Your task to perform on an android device: turn off location history Image 0: 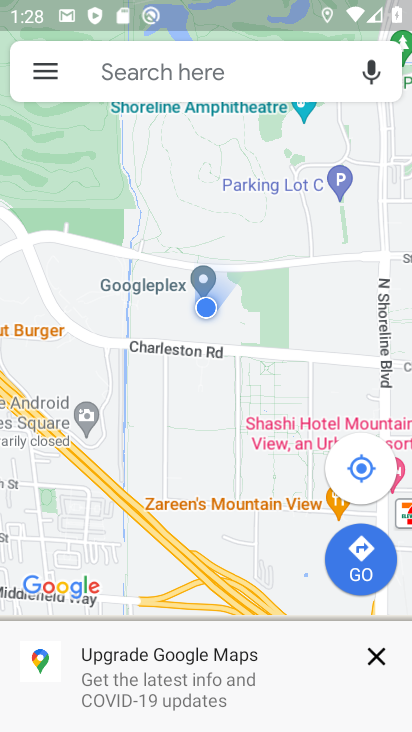
Step 0: press home button
Your task to perform on an android device: turn off location history Image 1: 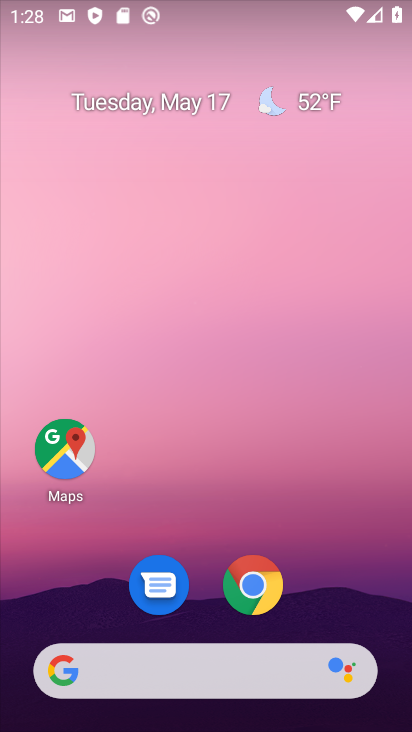
Step 1: drag from (277, 516) to (283, 160)
Your task to perform on an android device: turn off location history Image 2: 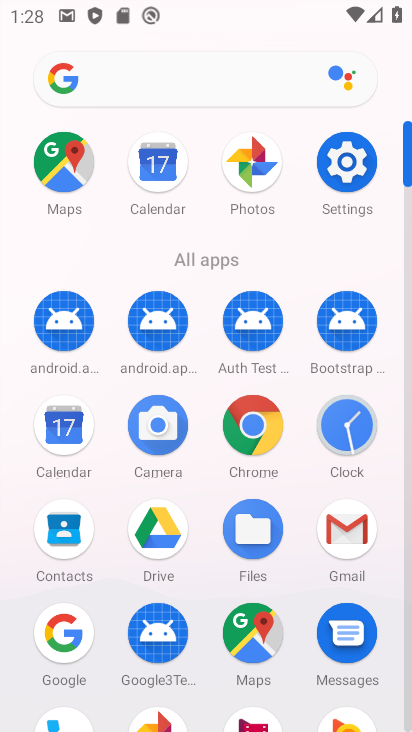
Step 2: click (338, 168)
Your task to perform on an android device: turn off location history Image 3: 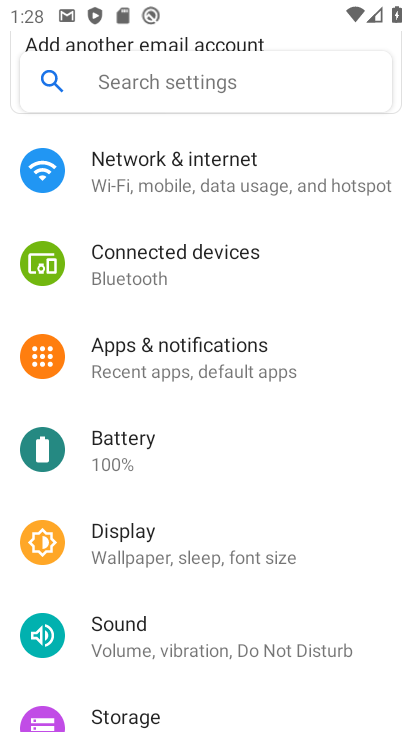
Step 3: drag from (178, 590) to (244, 129)
Your task to perform on an android device: turn off location history Image 4: 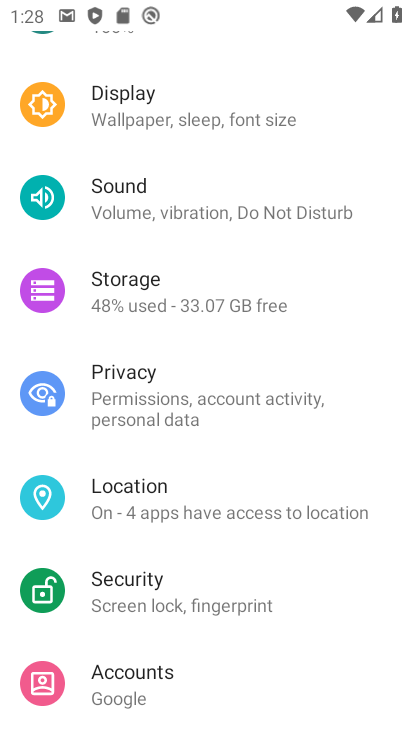
Step 4: click (183, 499)
Your task to perform on an android device: turn off location history Image 5: 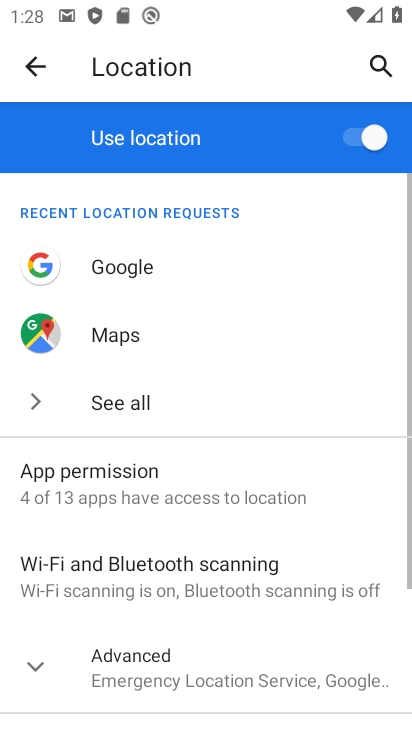
Step 5: drag from (233, 515) to (246, 304)
Your task to perform on an android device: turn off location history Image 6: 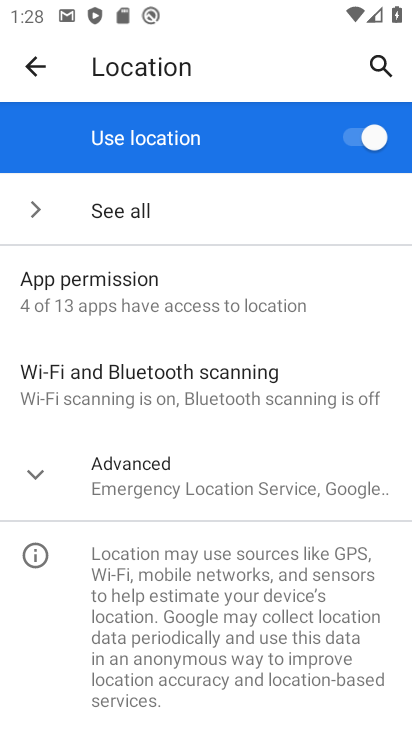
Step 6: click (34, 480)
Your task to perform on an android device: turn off location history Image 7: 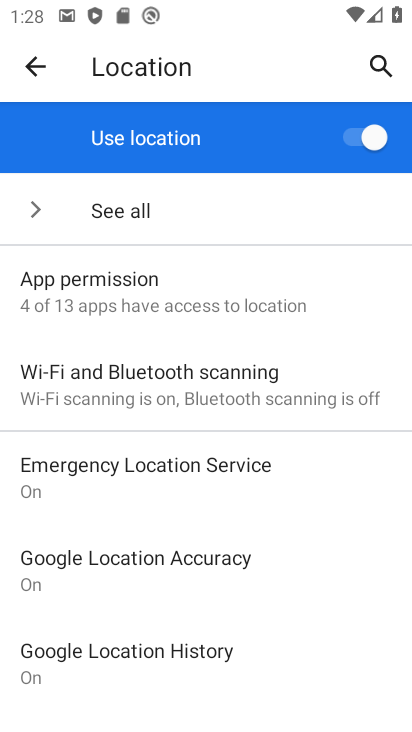
Step 7: click (178, 670)
Your task to perform on an android device: turn off location history Image 8: 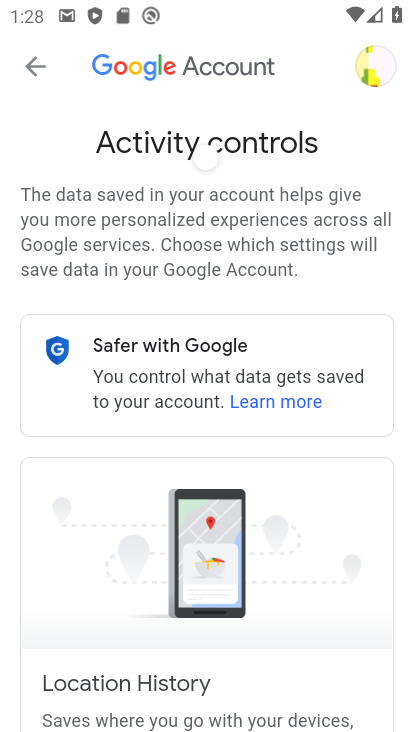
Step 8: drag from (301, 559) to (340, 226)
Your task to perform on an android device: turn off location history Image 9: 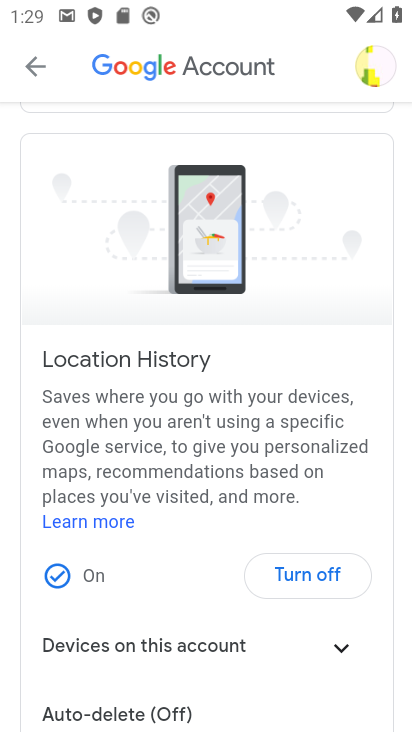
Step 9: click (308, 567)
Your task to perform on an android device: turn off location history Image 10: 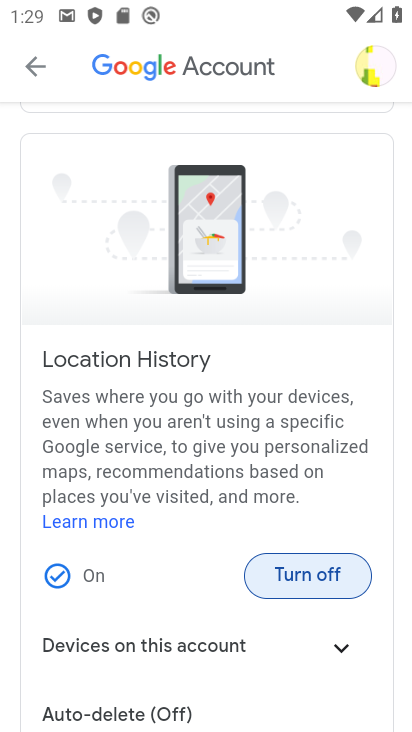
Step 10: click (308, 565)
Your task to perform on an android device: turn off location history Image 11: 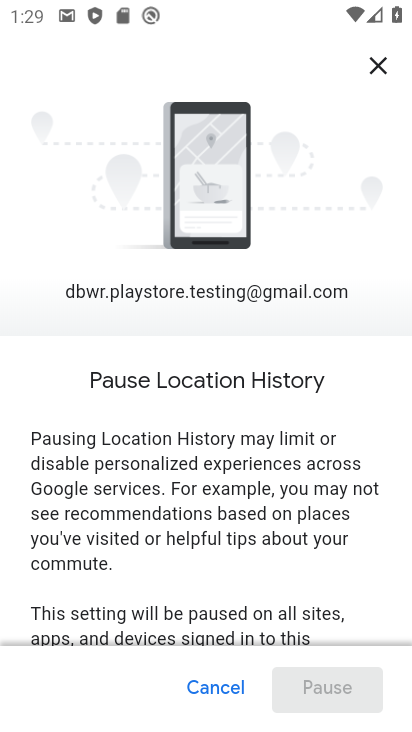
Step 11: drag from (308, 561) to (344, 361)
Your task to perform on an android device: turn off location history Image 12: 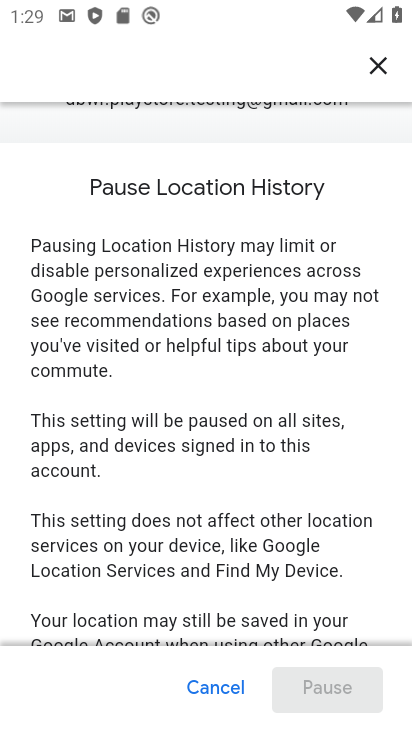
Step 12: drag from (280, 526) to (296, 194)
Your task to perform on an android device: turn off location history Image 13: 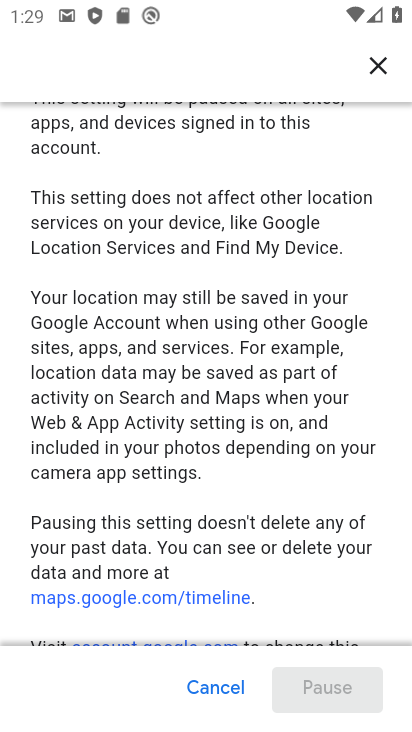
Step 13: drag from (283, 530) to (285, 241)
Your task to perform on an android device: turn off location history Image 14: 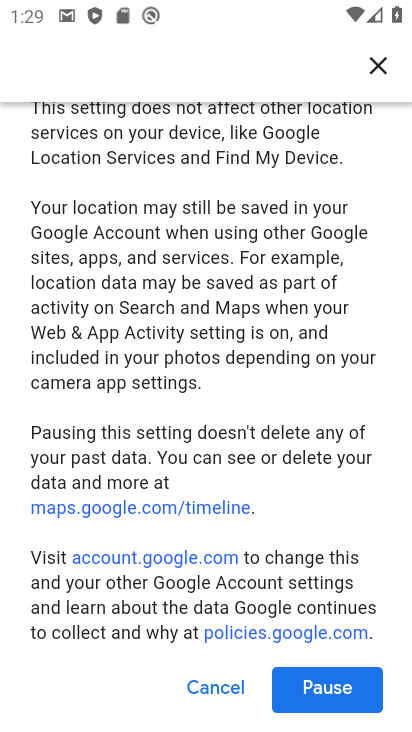
Step 14: click (312, 687)
Your task to perform on an android device: turn off location history Image 15: 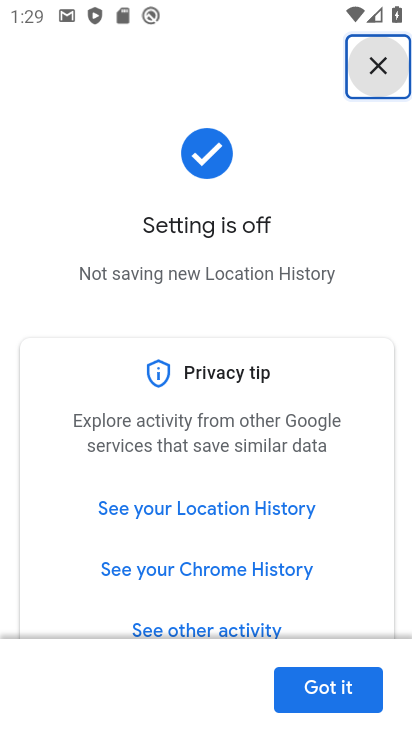
Step 15: click (362, 688)
Your task to perform on an android device: turn off location history Image 16: 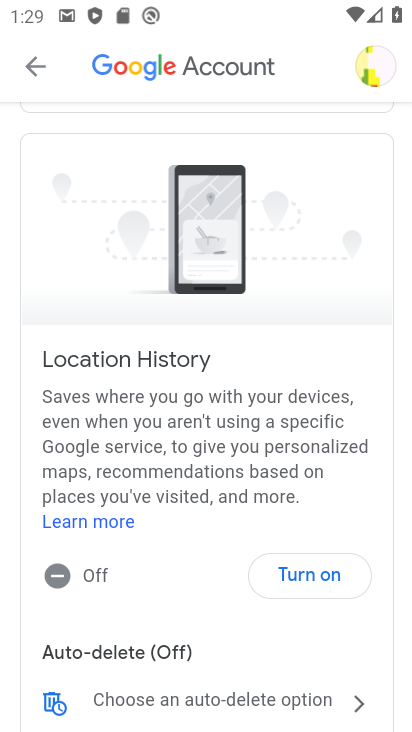
Step 16: task complete